Your task to perform on an android device: remove spam from my inbox in the gmail app Image 0: 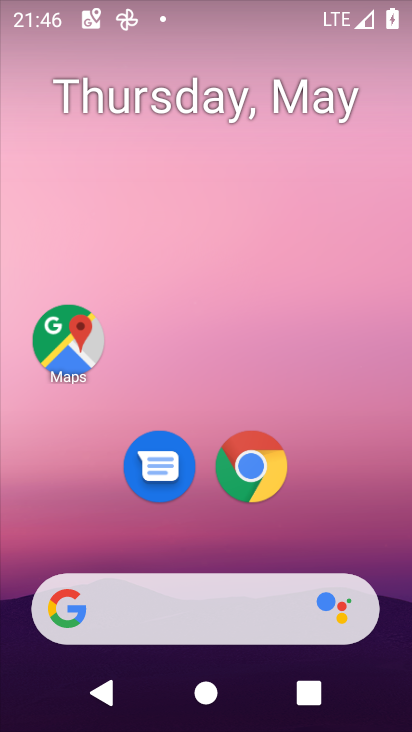
Step 0: drag from (395, 553) to (290, 84)
Your task to perform on an android device: remove spam from my inbox in the gmail app Image 1: 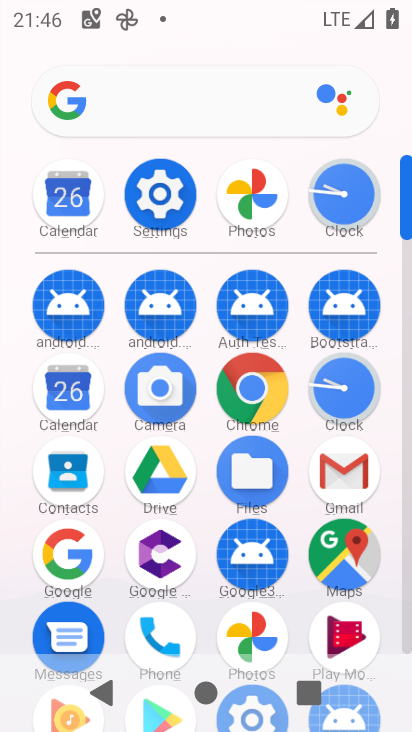
Step 1: click (290, 84)
Your task to perform on an android device: remove spam from my inbox in the gmail app Image 2: 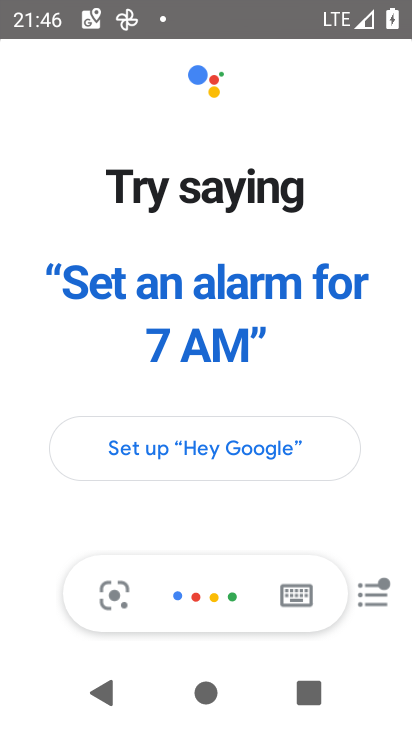
Step 2: press home button
Your task to perform on an android device: remove spam from my inbox in the gmail app Image 3: 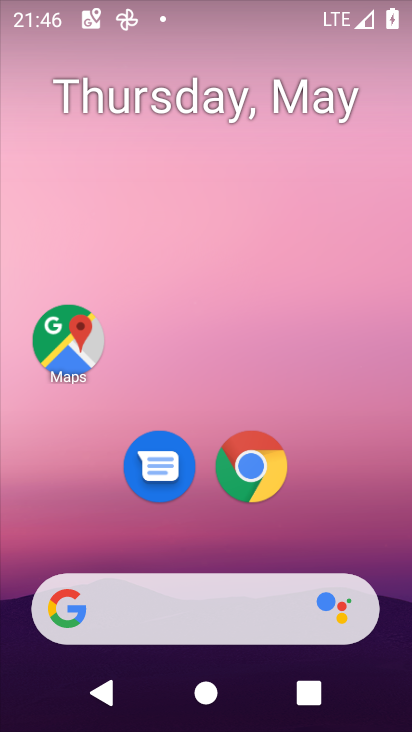
Step 3: drag from (351, 489) to (349, 100)
Your task to perform on an android device: remove spam from my inbox in the gmail app Image 4: 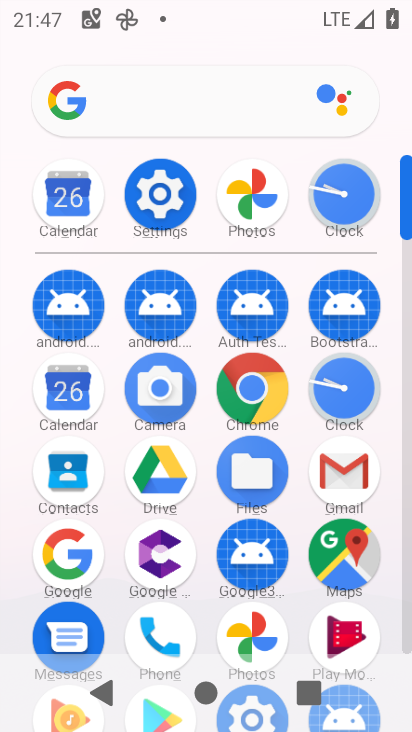
Step 4: click (340, 455)
Your task to perform on an android device: remove spam from my inbox in the gmail app Image 5: 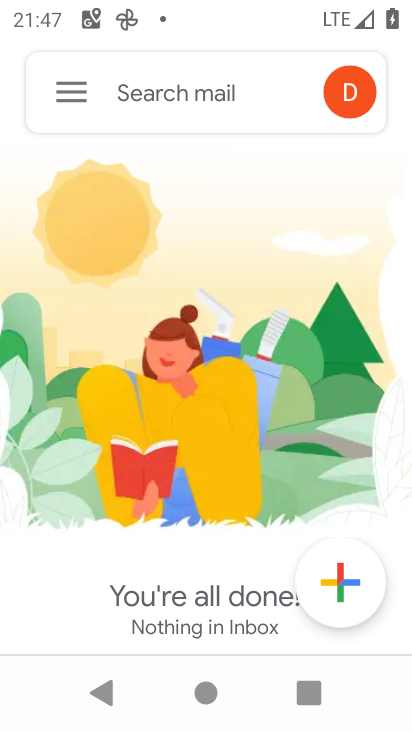
Step 5: click (68, 89)
Your task to perform on an android device: remove spam from my inbox in the gmail app Image 6: 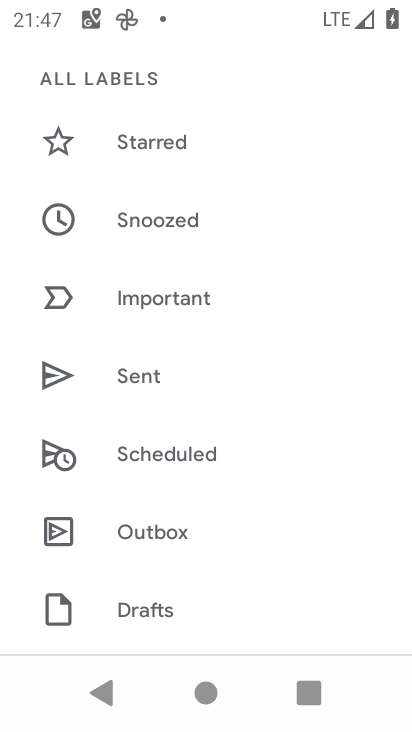
Step 6: drag from (201, 572) to (206, 193)
Your task to perform on an android device: remove spam from my inbox in the gmail app Image 7: 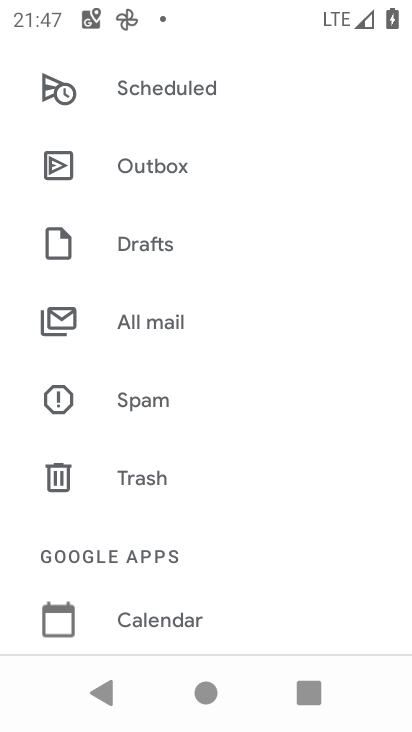
Step 7: click (201, 333)
Your task to perform on an android device: remove spam from my inbox in the gmail app Image 8: 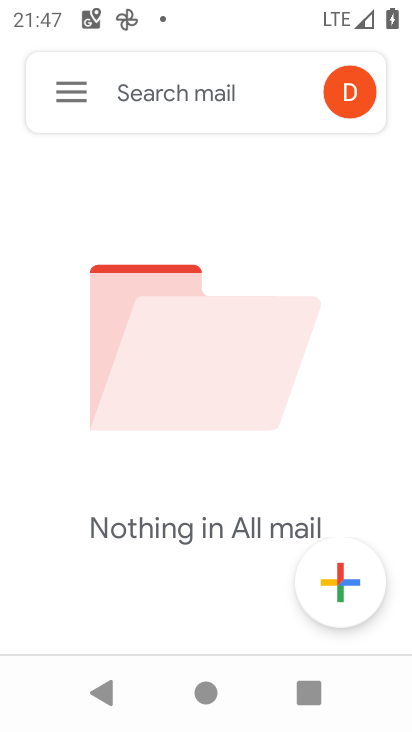
Step 8: task complete